Your task to perform on an android device: Search for a new blush on Sephora Image 0: 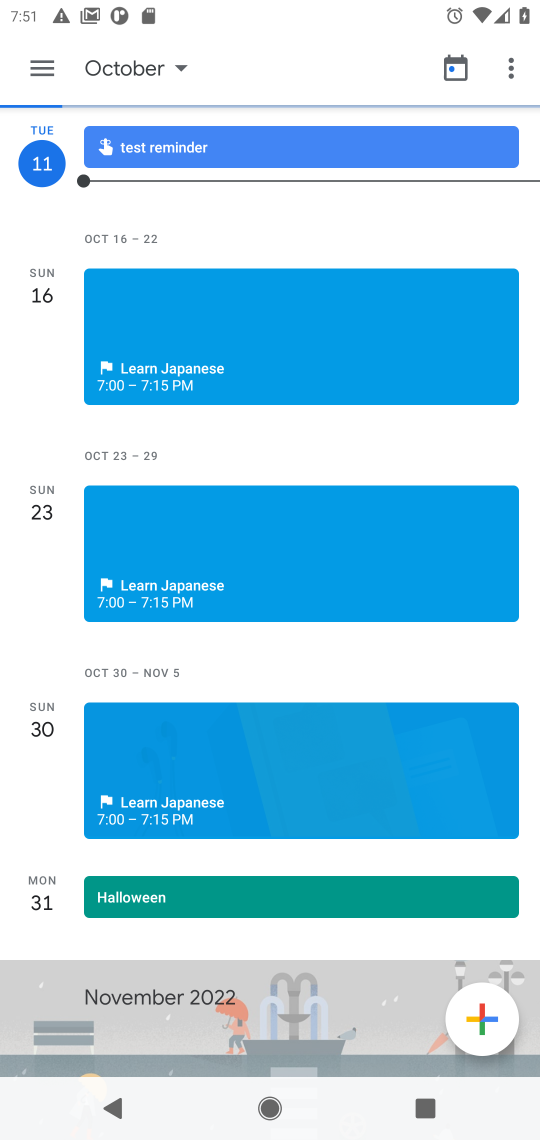
Step 0: click (373, 895)
Your task to perform on an android device: Search for a new blush on Sephora Image 1: 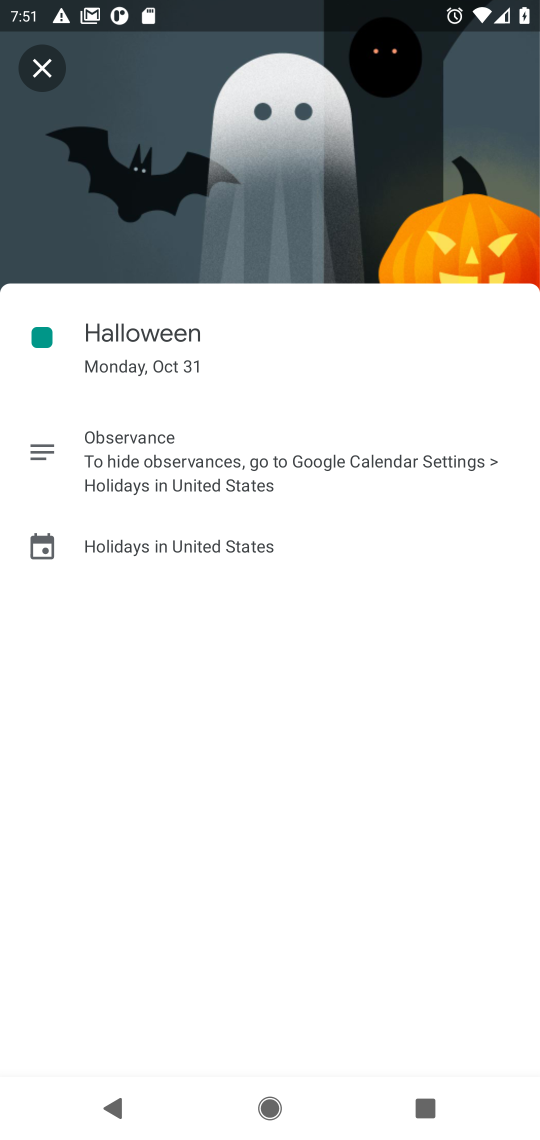
Step 1: press home button
Your task to perform on an android device: Search for a new blush on Sephora Image 2: 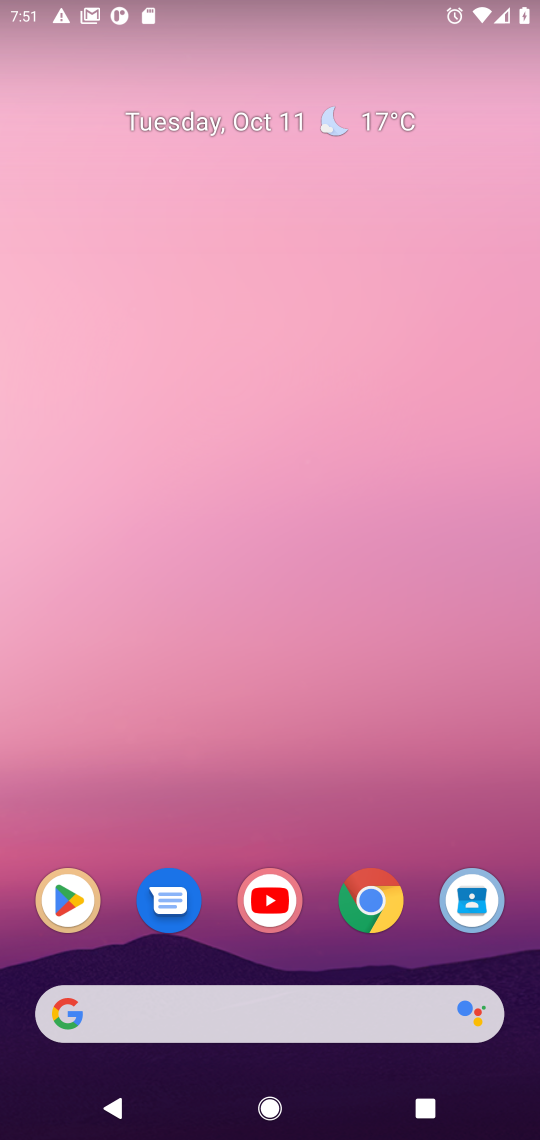
Step 2: click (383, 912)
Your task to perform on an android device: Search for a new blush on Sephora Image 3: 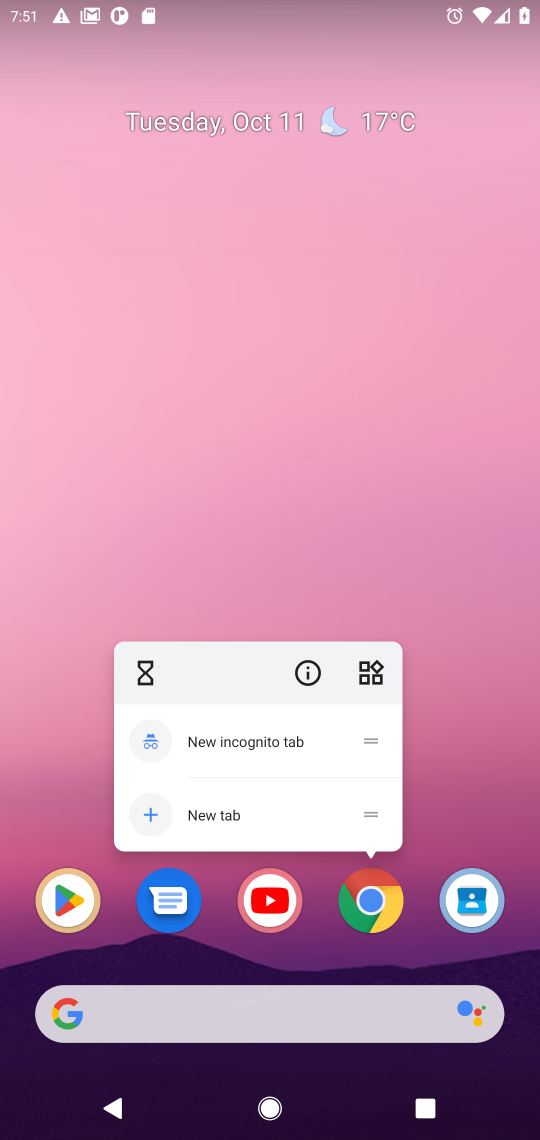
Step 3: click (376, 912)
Your task to perform on an android device: Search for a new blush on Sephora Image 4: 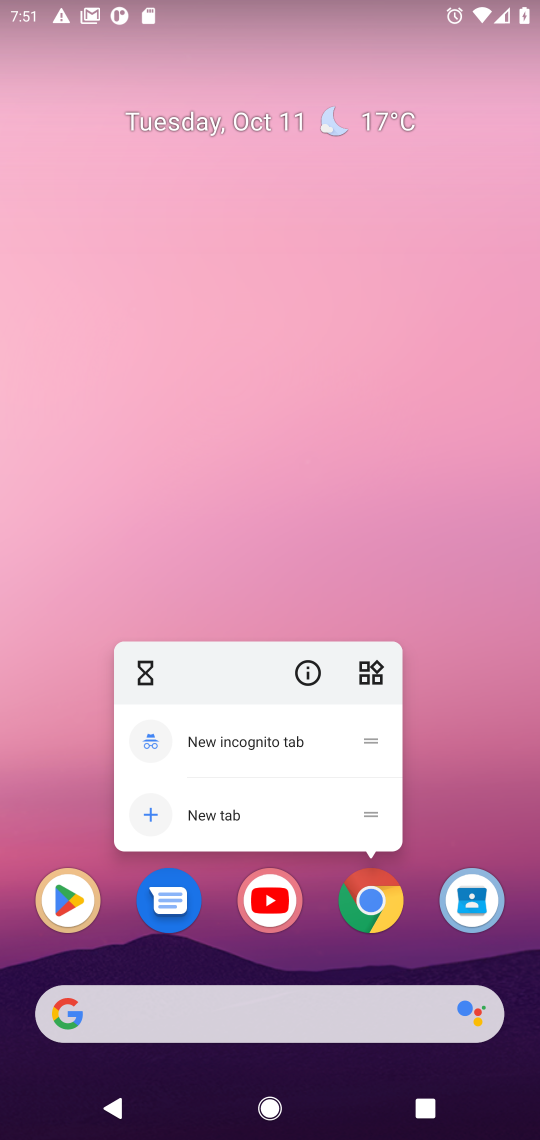
Step 4: click (379, 906)
Your task to perform on an android device: Search for a new blush on Sephora Image 5: 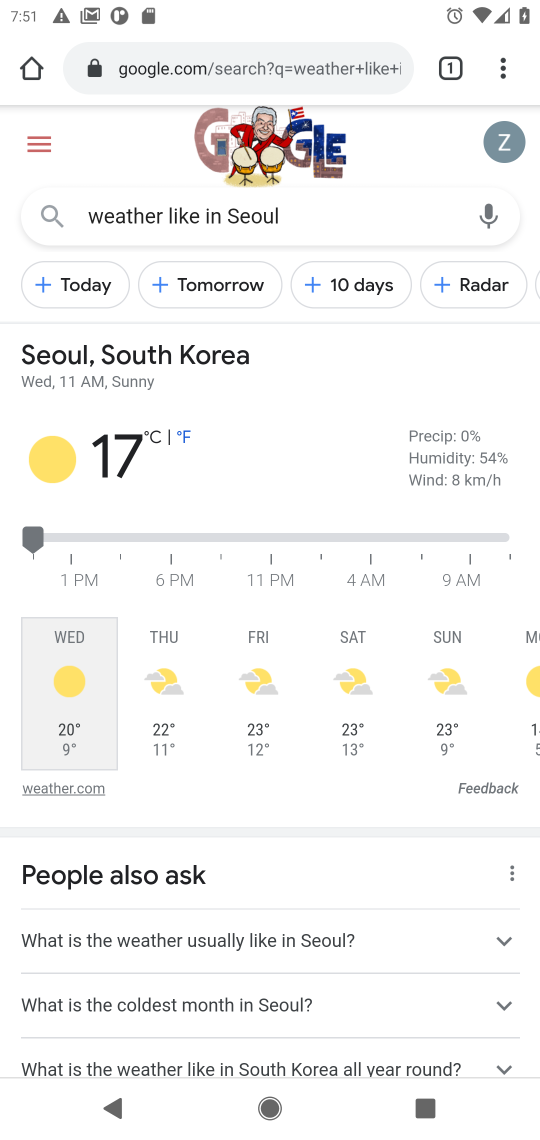
Step 5: click (281, 68)
Your task to perform on an android device: Search for a new blush on Sephora Image 6: 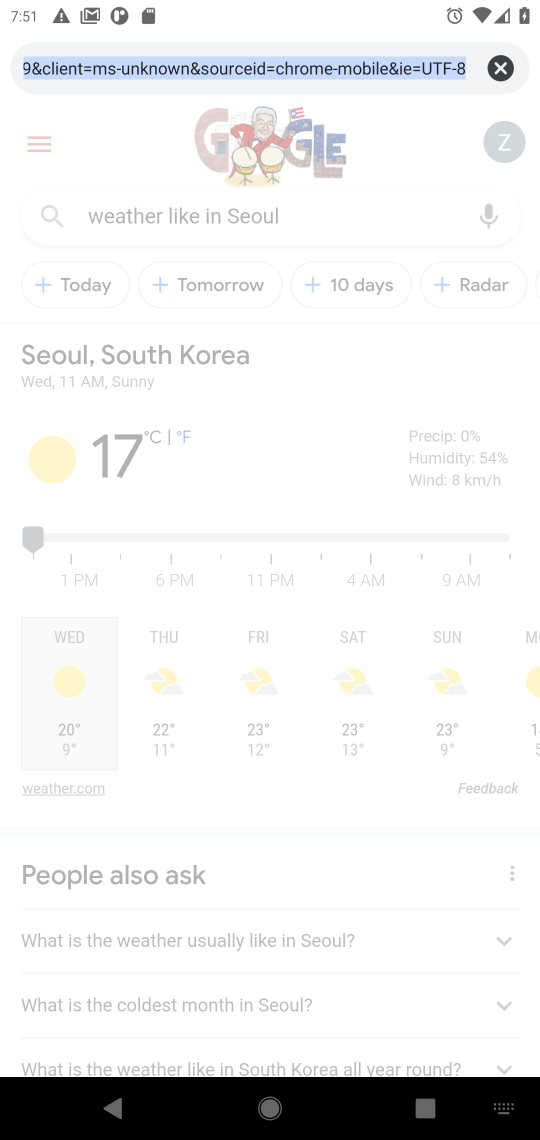
Step 6: click (502, 61)
Your task to perform on an android device: Search for a new blush on Sephora Image 7: 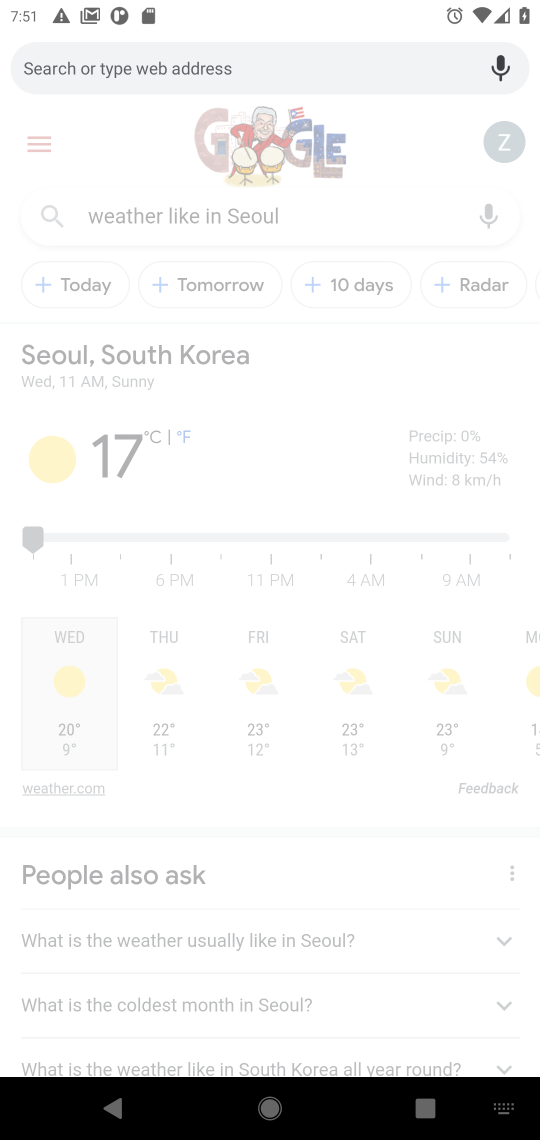
Step 7: type "new blush on Sephora"
Your task to perform on an android device: Search for a new blush on Sephora Image 8: 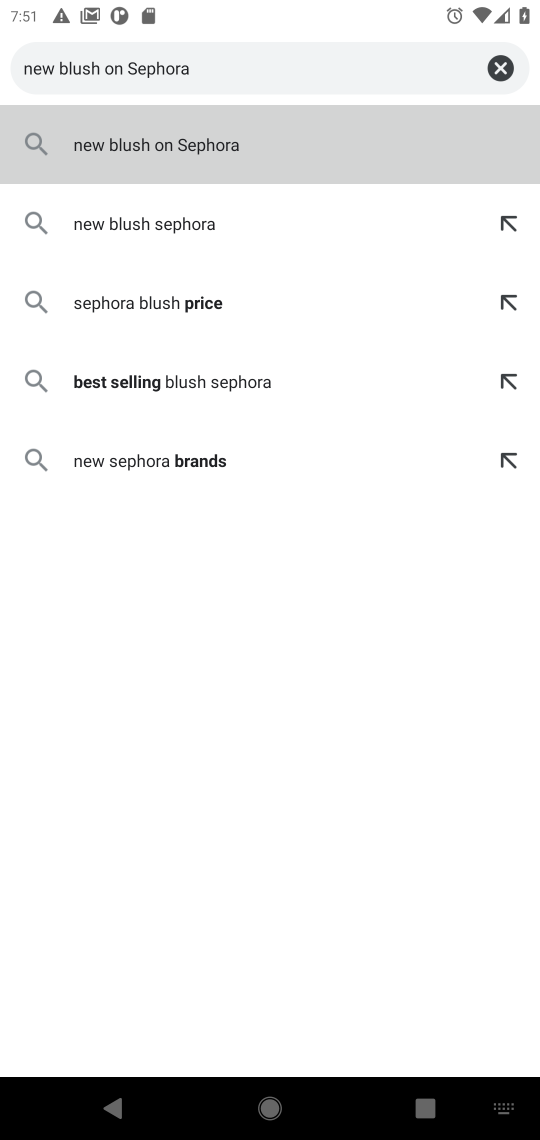
Step 8: press enter
Your task to perform on an android device: Search for a new blush on Sephora Image 9: 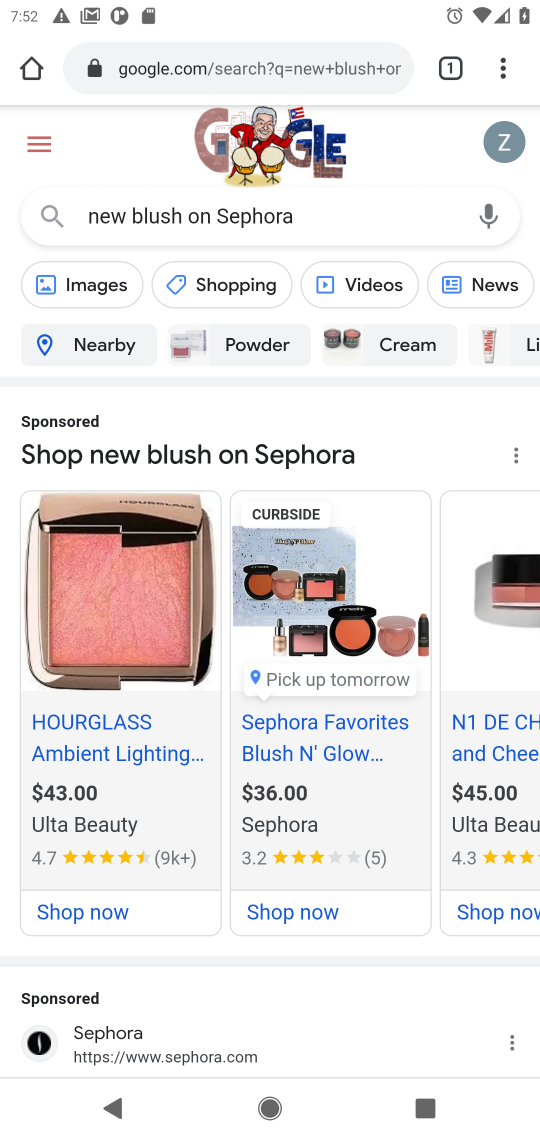
Step 9: drag from (257, 1009) to (330, 541)
Your task to perform on an android device: Search for a new blush on Sephora Image 10: 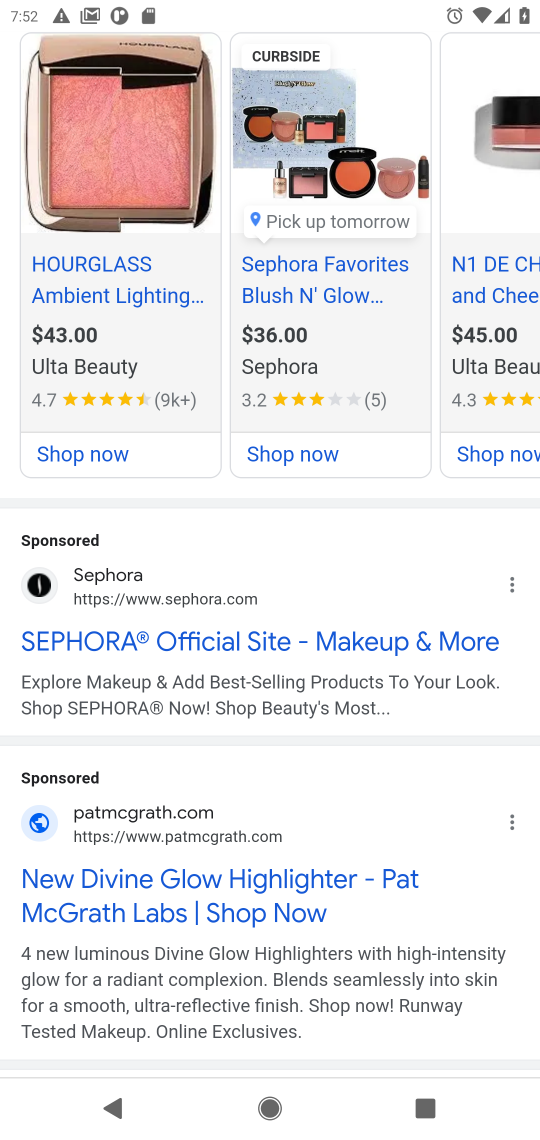
Step 10: click (244, 648)
Your task to perform on an android device: Search for a new blush on Sephora Image 11: 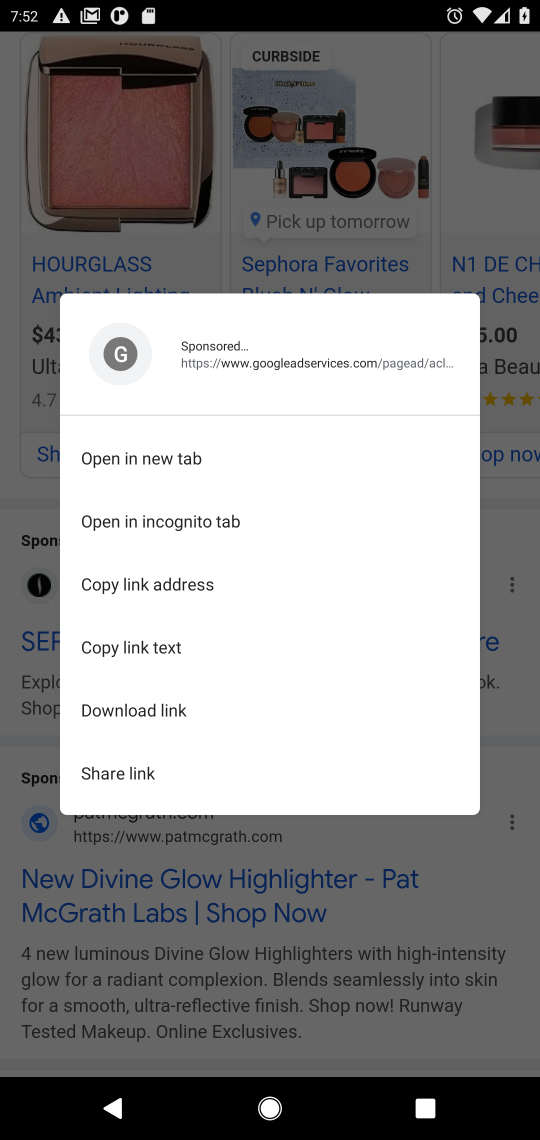
Step 11: click (452, 898)
Your task to perform on an android device: Search for a new blush on Sephora Image 12: 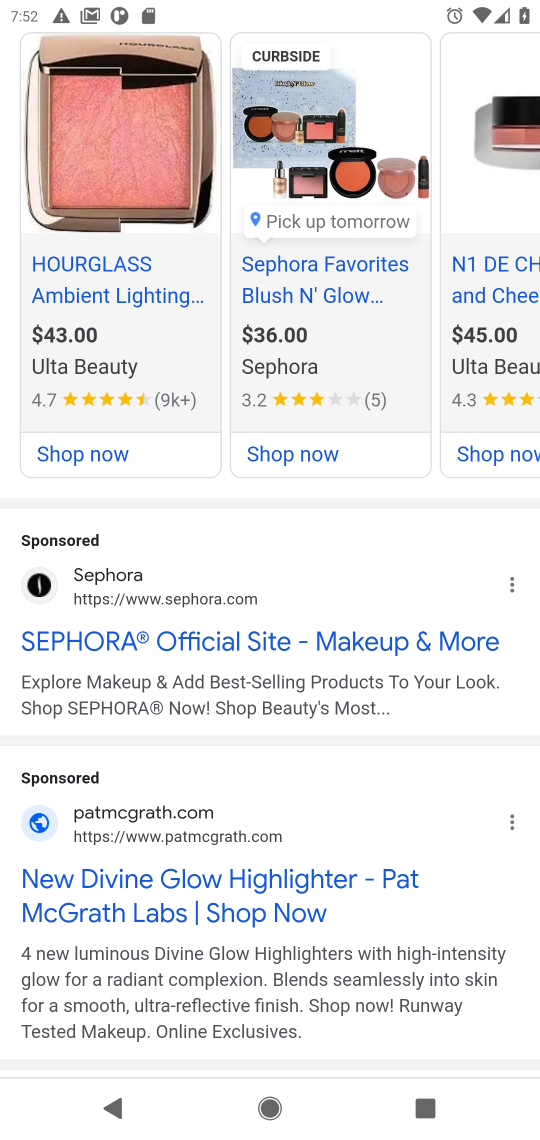
Step 12: click (91, 638)
Your task to perform on an android device: Search for a new blush on Sephora Image 13: 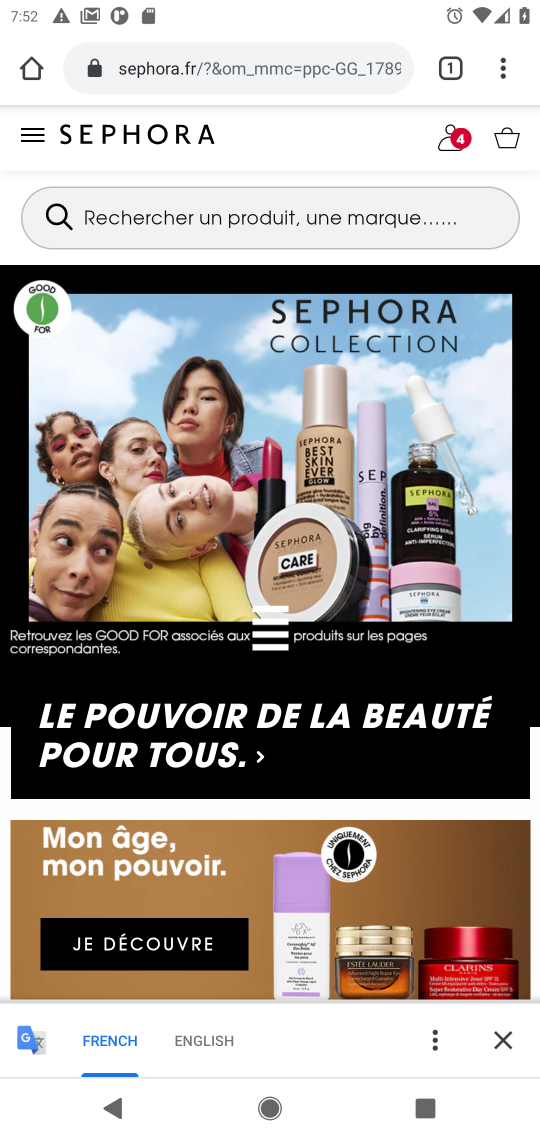
Step 13: click (188, 214)
Your task to perform on an android device: Search for a new blush on Sephora Image 14: 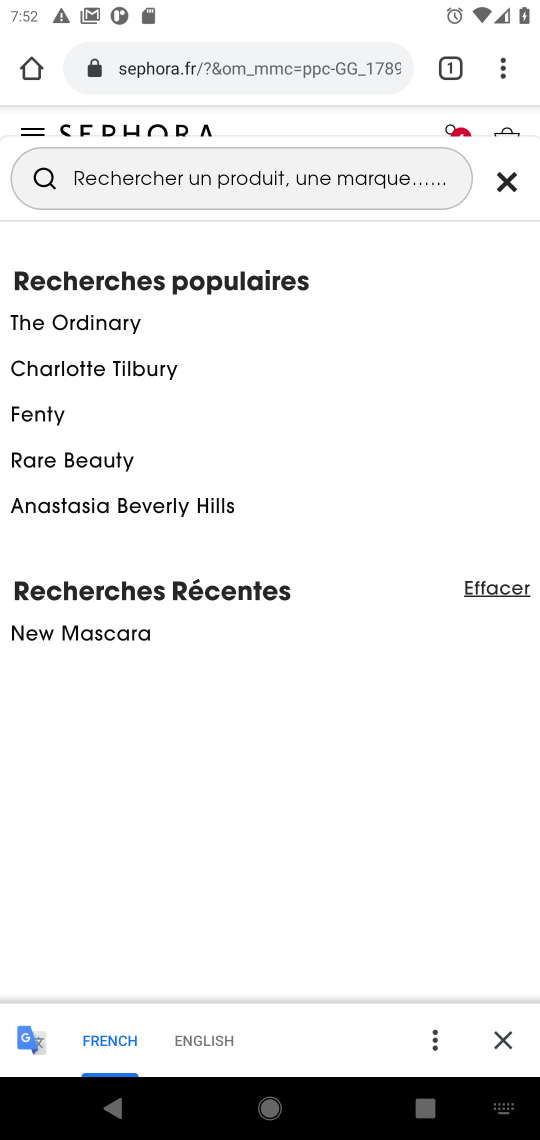
Step 14: type "new blush"
Your task to perform on an android device: Search for a new blush on Sephora Image 15: 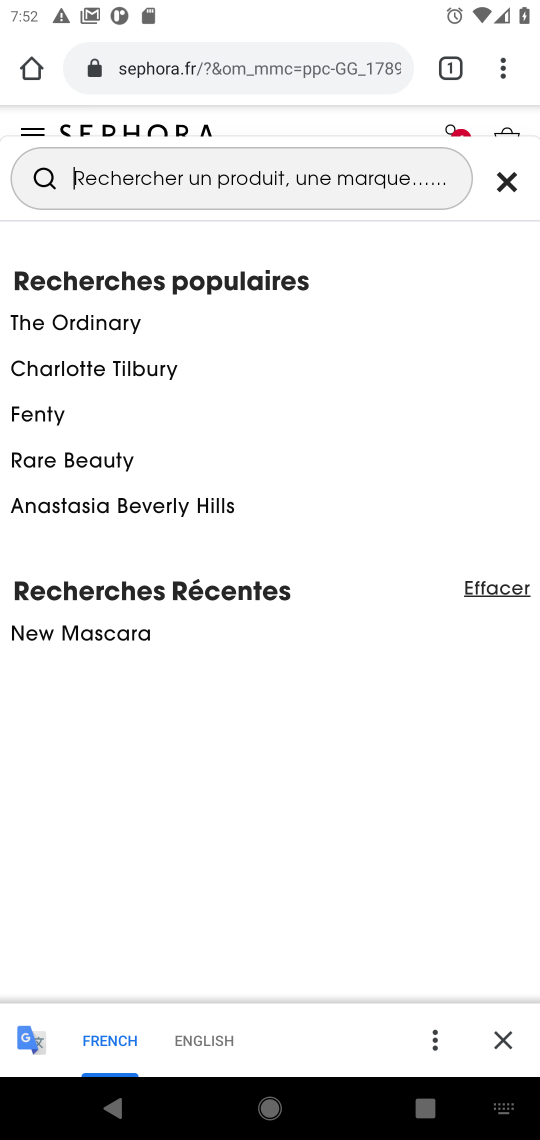
Step 15: press enter
Your task to perform on an android device: Search for a new blush on Sephora Image 16: 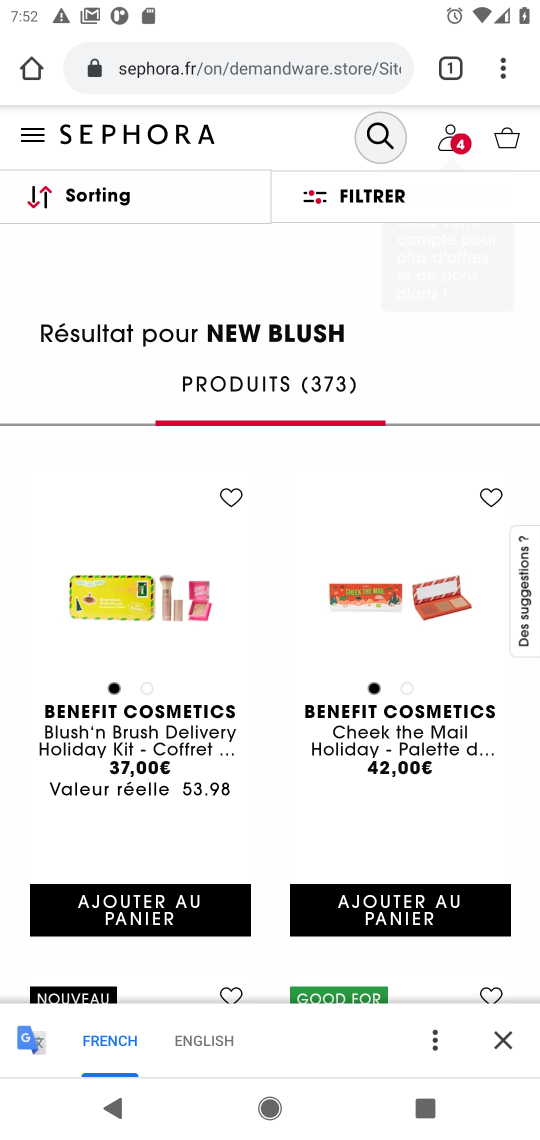
Step 16: task complete